Your task to perform on an android device: Open calendar and show me the first week of next month Image 0: 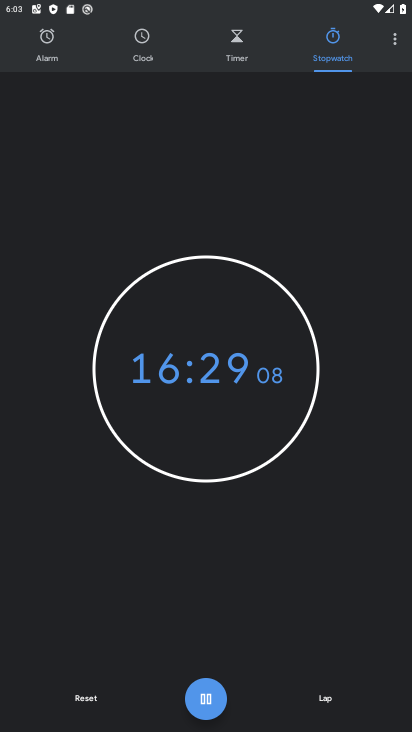
Step 0: press home button
Your task to perform on an android device: Open calendar and show me the first week of next month Image 1: 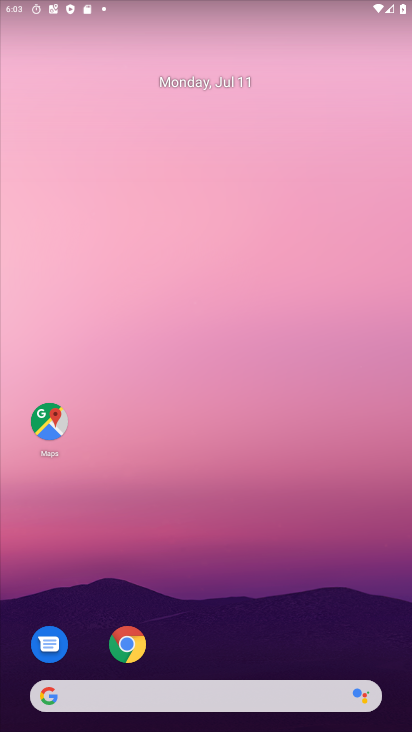
Step 1: drag from (330, 654) to (395, 12)
Your task to perform on an android device: Open calendar and show me the first week of next month Image 2: 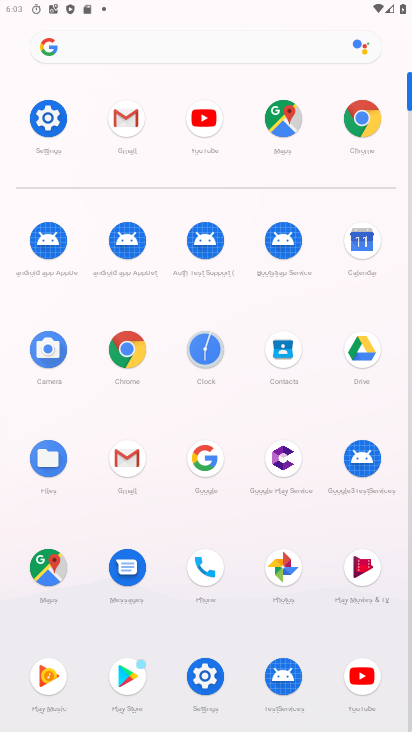
Step 2: click (368, 242)
Your task to perform on an android device: Open calendar and show me the first week of next month Image 3: 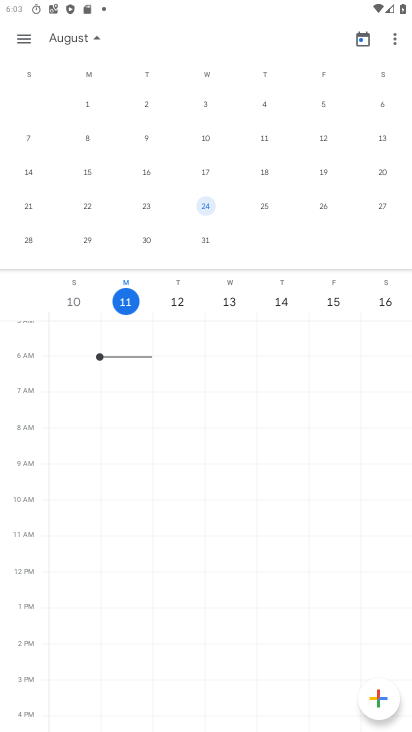
Step 3: click (257, 105)
Your task to perform on an android device: Open calendar and show me the first week of next month Image 4: 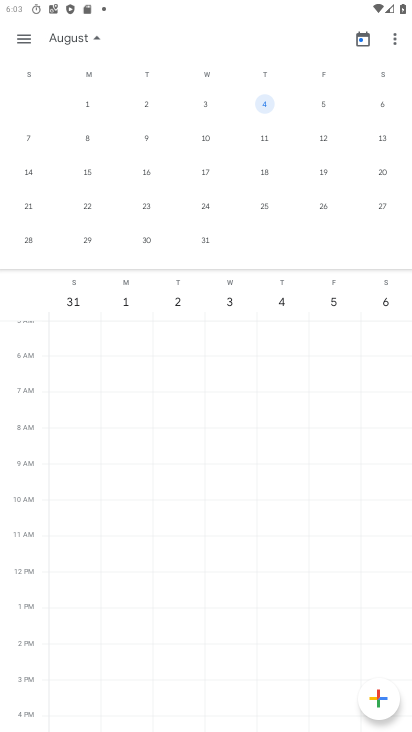
Step 4: task complete